Your task to perform on an android device: Go to location settings Image 0: 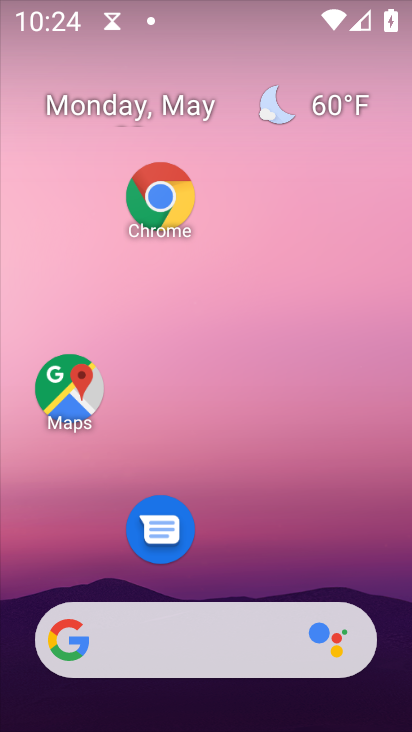
Step 0: drag from (249, 569) to (169, 13)
Your task to perform on an android device: Go to location settings Image 1: 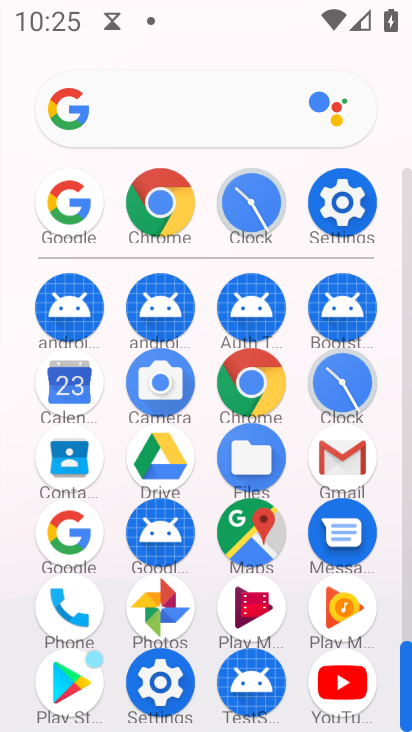
Step 1: click (336, 230)
Your task to perform on an android device: Go to location settings Image 2: 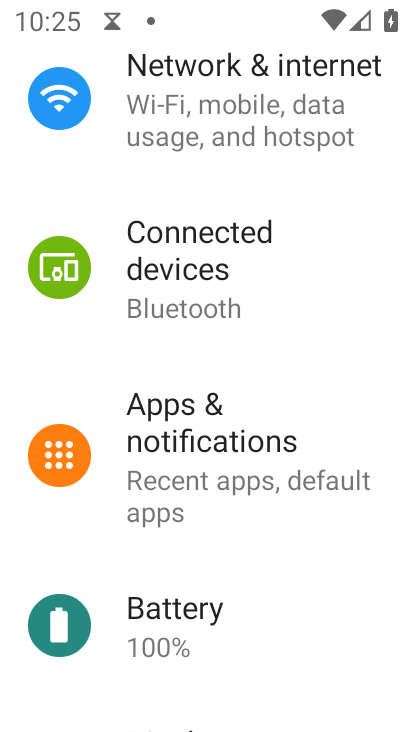
Step 2: drag from (272, 197) to (218, 533)
Your task to perform on an android device: Go to location settings Image 3: 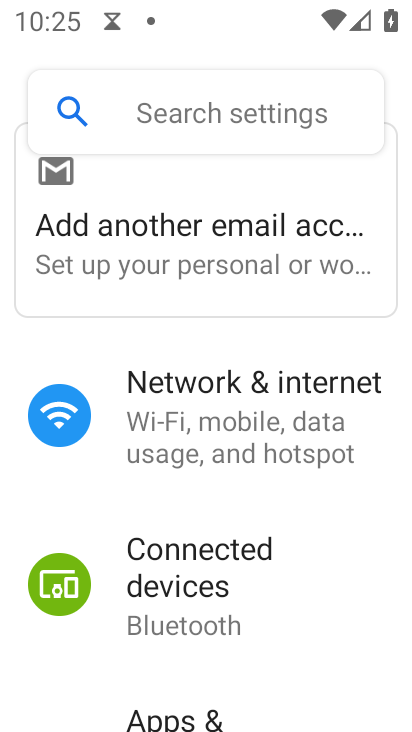
Step 3: drag from (225, 708) to (242, 285)
Your task to perform on an android device: Go to location settings Image 4: 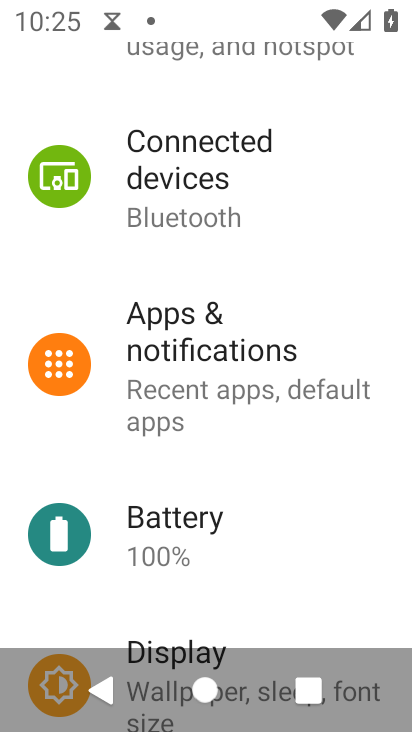
Step 4: drag from (219, 550) to (221, 161)
Your task to perform on an android device: Go to location settings Image 5: 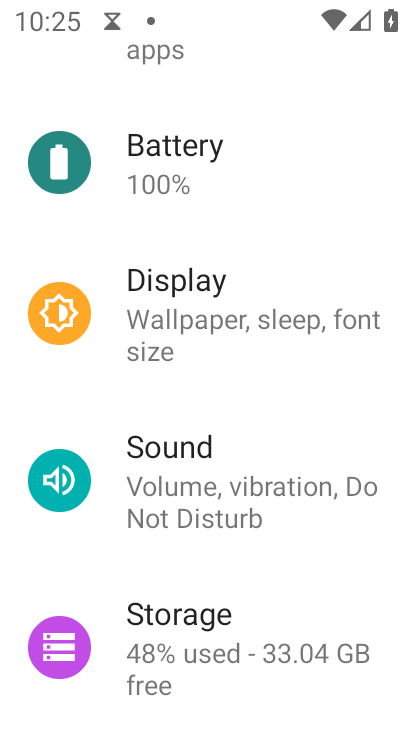
Step 5: drag from (184, 559) to (187, 286)
Your task to perform on an android device: Go to location settings Image 6: 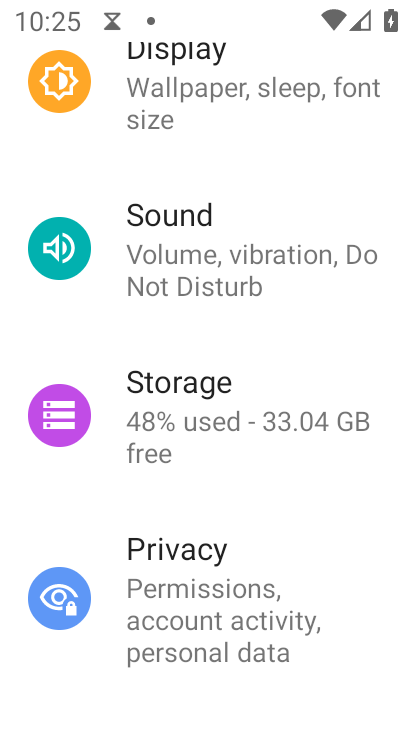
Step 6: drag from (211, 504) to (216, 273)
Your task to perform on an android device: Go to location settings Image 7: 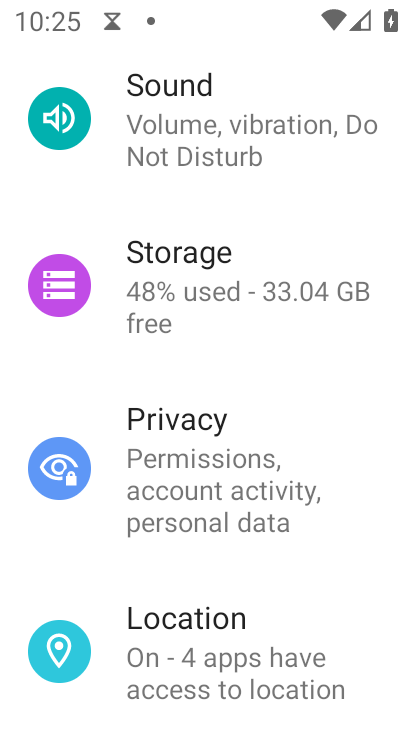
Step 7: click (175, 669)
Your task to perform on an android device: Go to location settings Image 8: 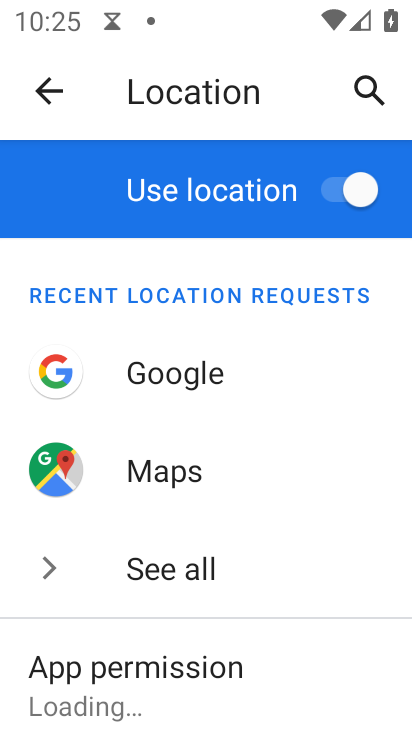
Step 8: task complete